Your task to perform on an android device: Go to eBay Image 0: 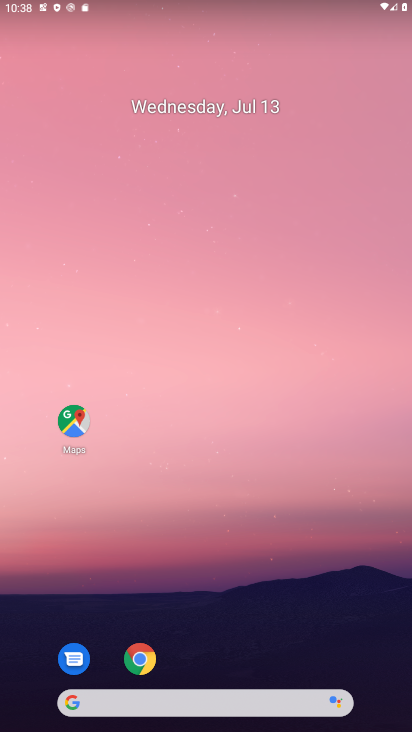
Step 0: drag from (338, 661) to (289, 3)
Your task to perform on an android device: Go to eBay Image 1: 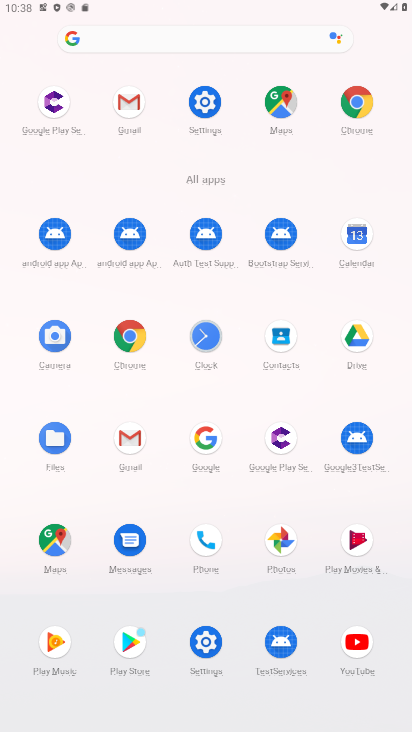
Step 1: click (344, 134)
Your task to perform on an android device: Go to eBay Image 2: 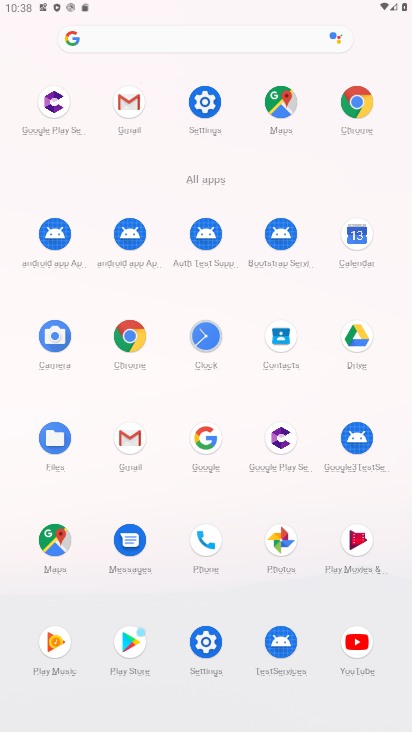
Step 2: click (360, 115)
Your task to perform on an android device: Go to eBay Image 3: 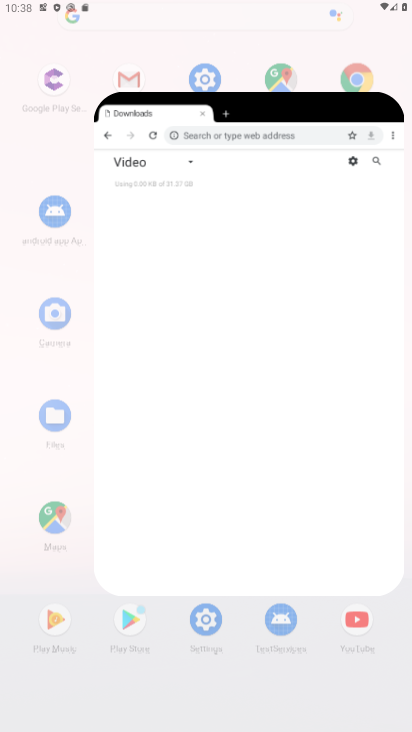
Step 3: click (361, 114)
Your task to perform on an android device: Go to eBay Image 4: 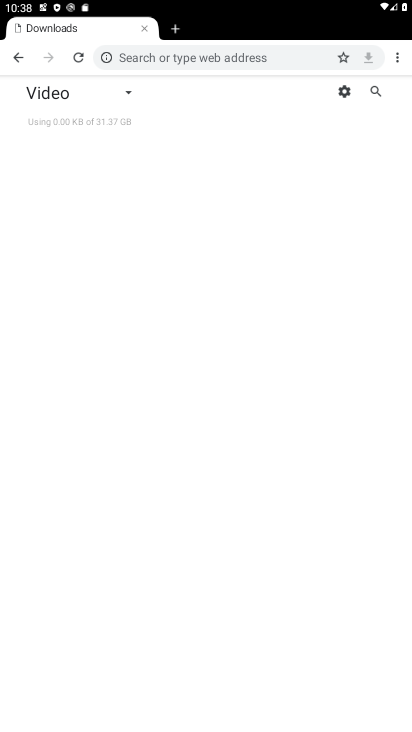
Step 4: click (11, 50)
Your task to perform on an android device: Go to eBay Image 5: 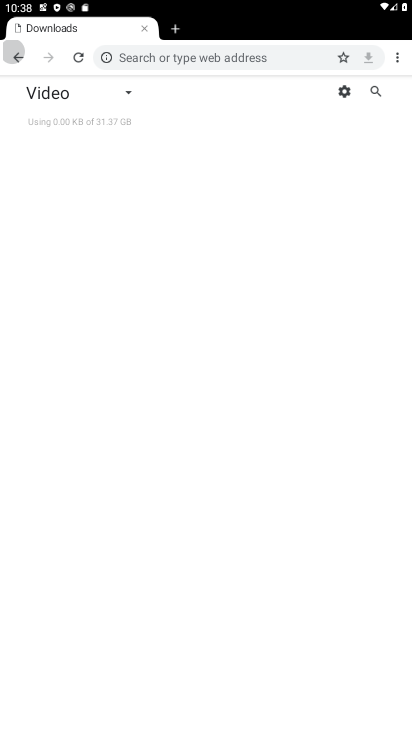
Step 5: click (13, 53)
Your task to perform on an android device: Go to eBay Image 6: 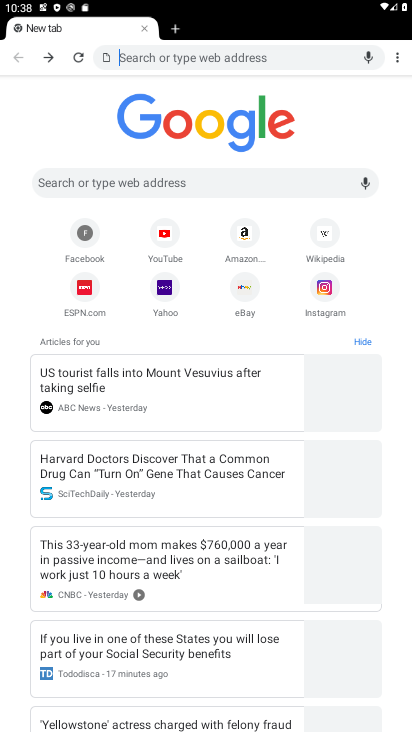
Step 6: click (14, 55)
Your task to perform on an android device: Go to eBay Image 7: 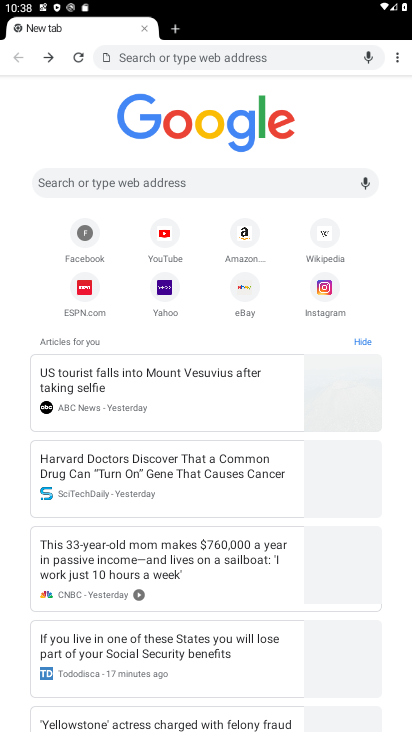
Step 7: click (16, 56)
Your task to perform on an android device: Go to eBay Image 8: 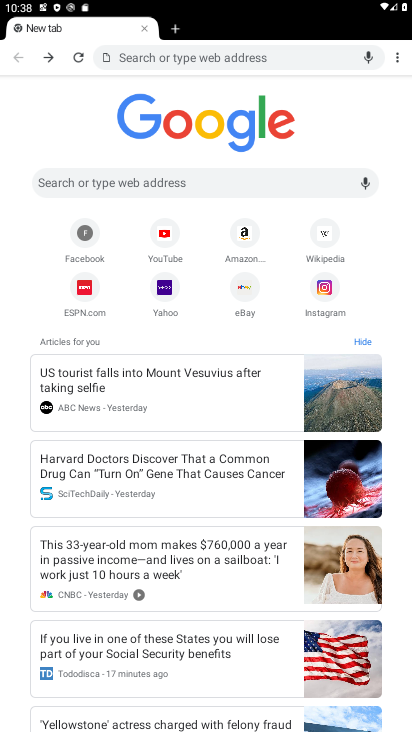
Step 8: click (247, 289)
Your task to perform on an android device: Go to eBay Image 9: 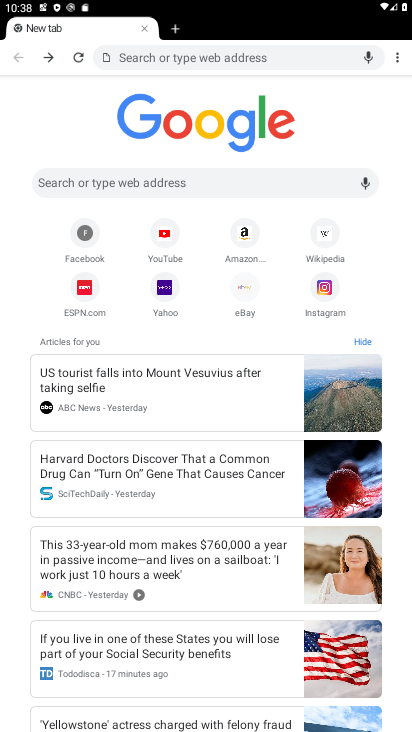
Step 9: click (247, 290)
Your task to perform on an android device: Go to eBay Image 10: 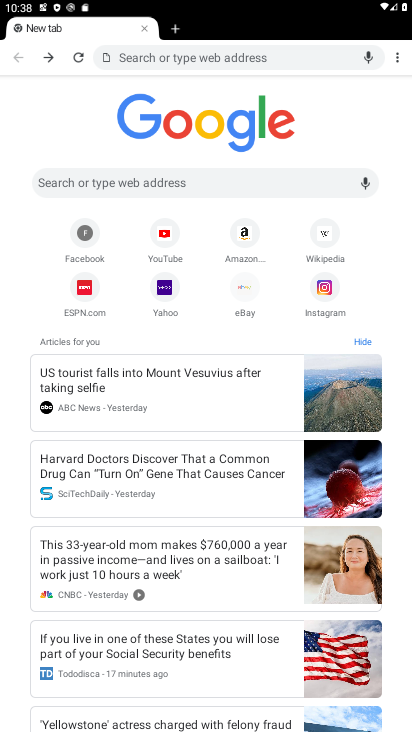
Step 10: click (249, 289)
Your task to perform on an android device: Go to eBay Image 11: 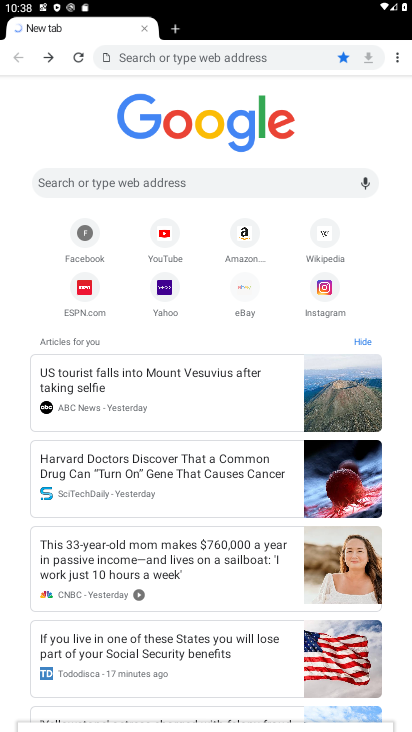
Step 11: click (248, 287)
Your task to perform on an android device: Go to eBay Image 12: 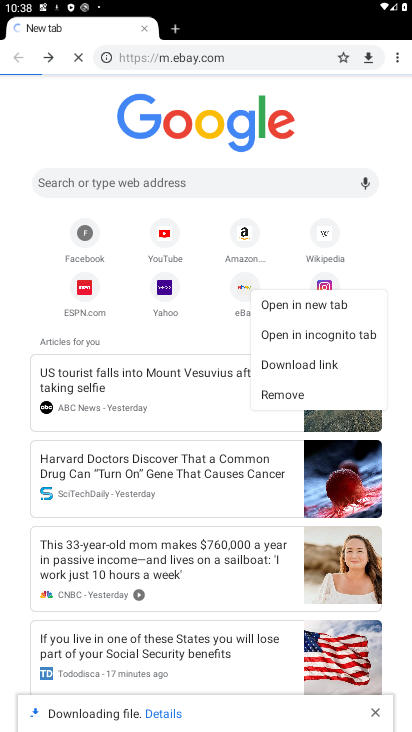
Step 12: click (244, 289)
Your task to perform on an android device: Go to eBay Image 13: 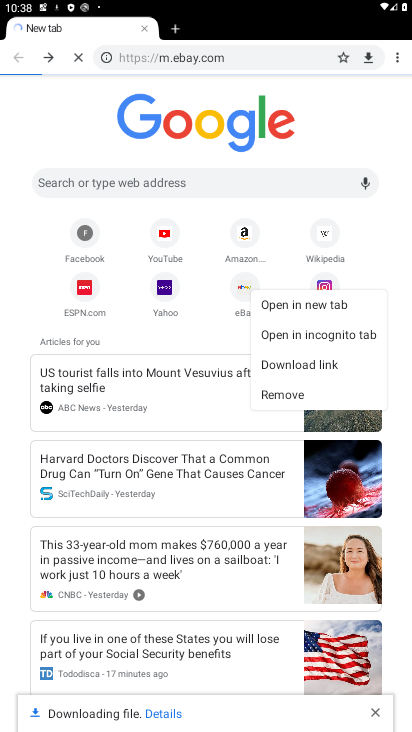
Step 13: click (245, 291)
Your task to perform on an android device: Go to eBay Image 14: 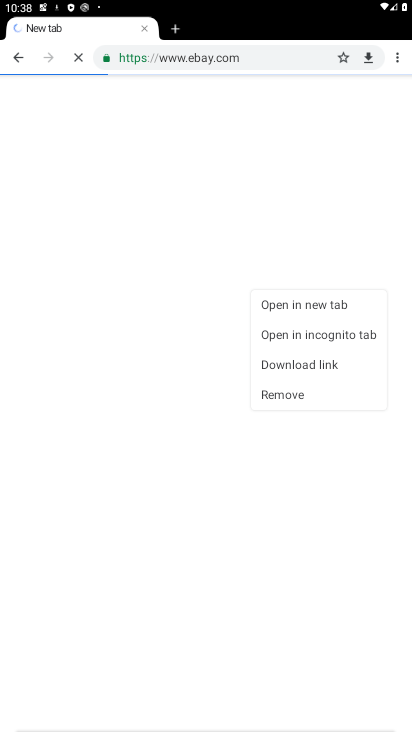
Step 14: click (251, 296)
Your task to perform on an android device: Go to eBay Image 15: 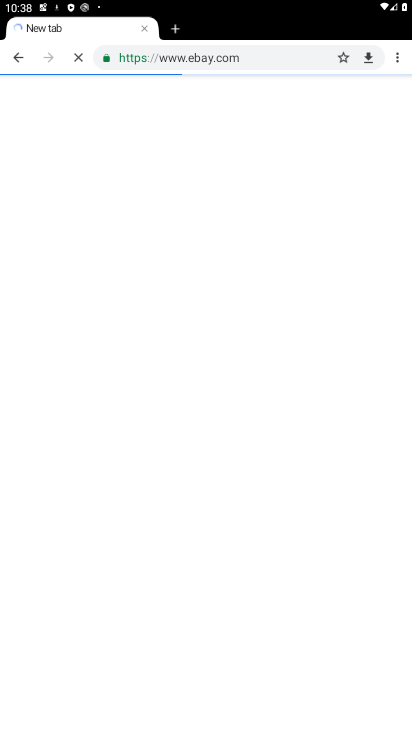
Step 15: click (250, 297)
Your task to perform on an android device: Go to eBay Image 16: 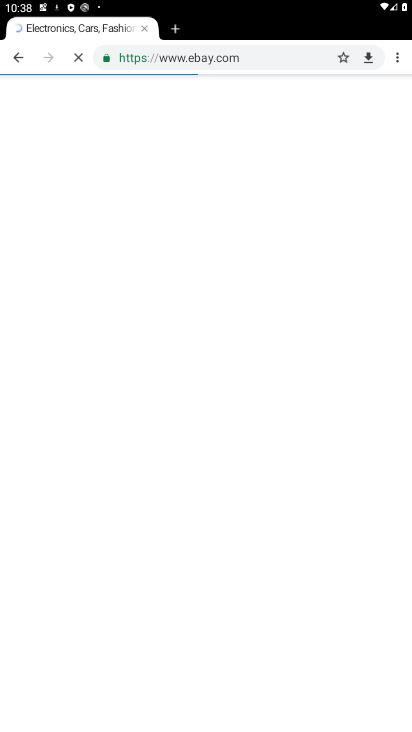
Step 16: click (246, 287)
Your task to perform on an android device: Go to eBay Image 17: 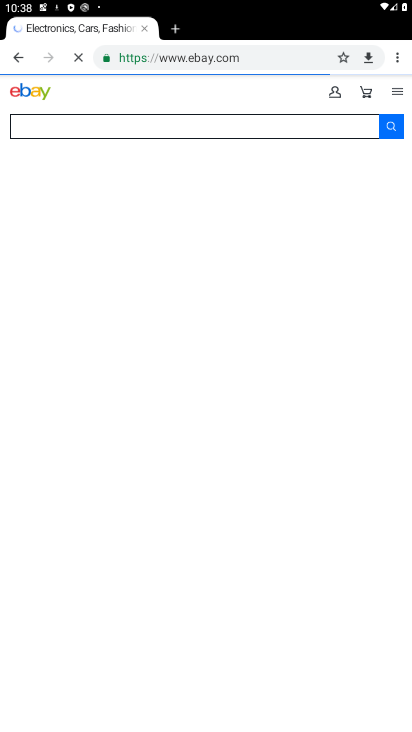
Step 17: task complete